Your task to perform on an android device: turn off picture-in-picture Image 0: 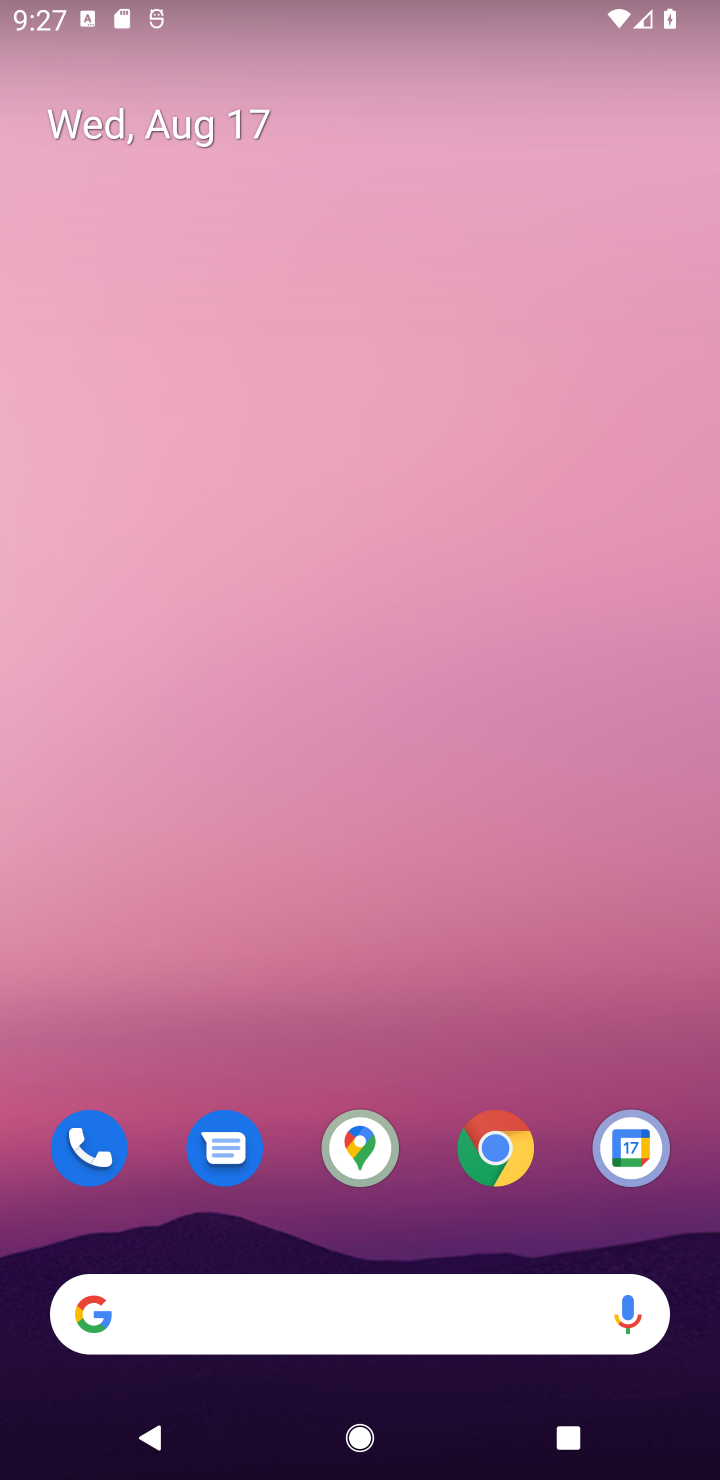
Step 0: drag from (567, 1228) to (644, 72)
Your task to perform on an android device: turn off picture-in-picture Image 1: 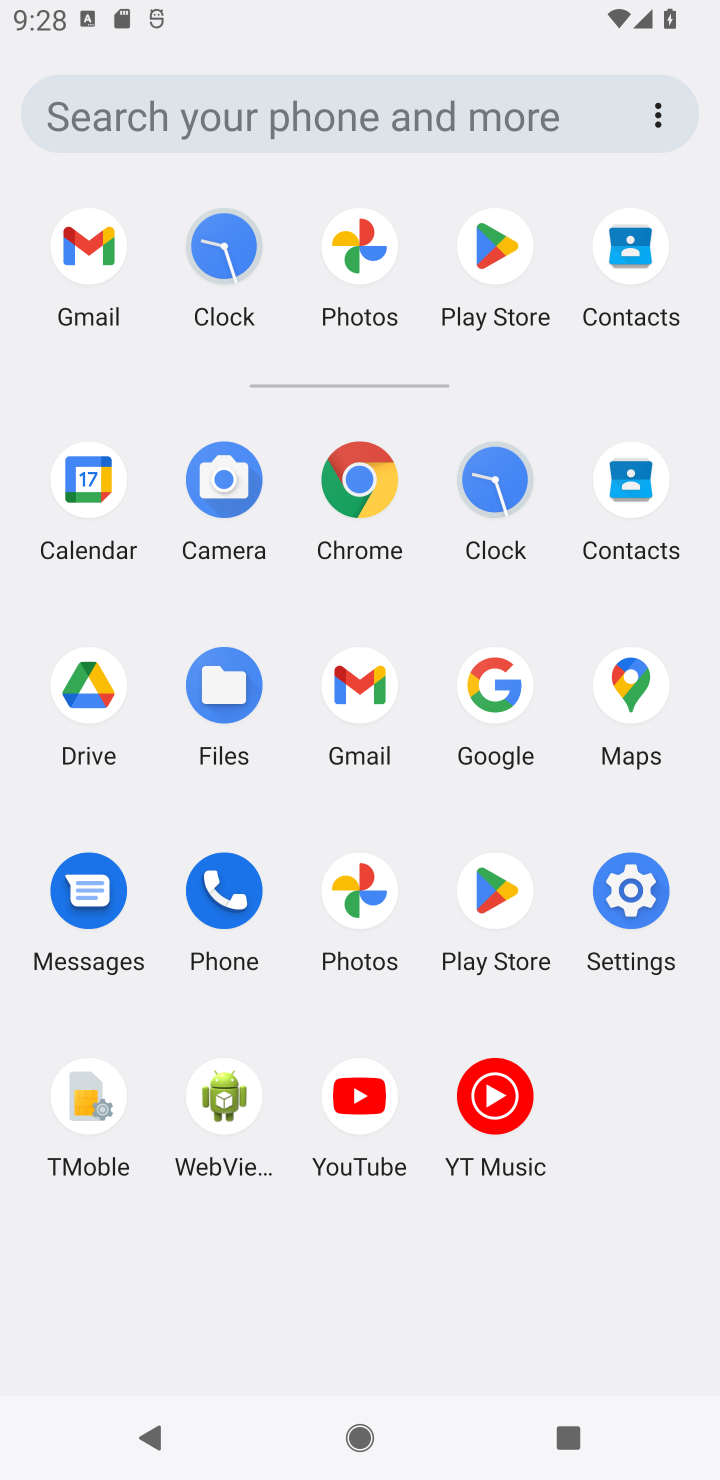
Step 1: click (635, 893)
Your task to perform on an android device: turn off picture-in-picture Image 2: 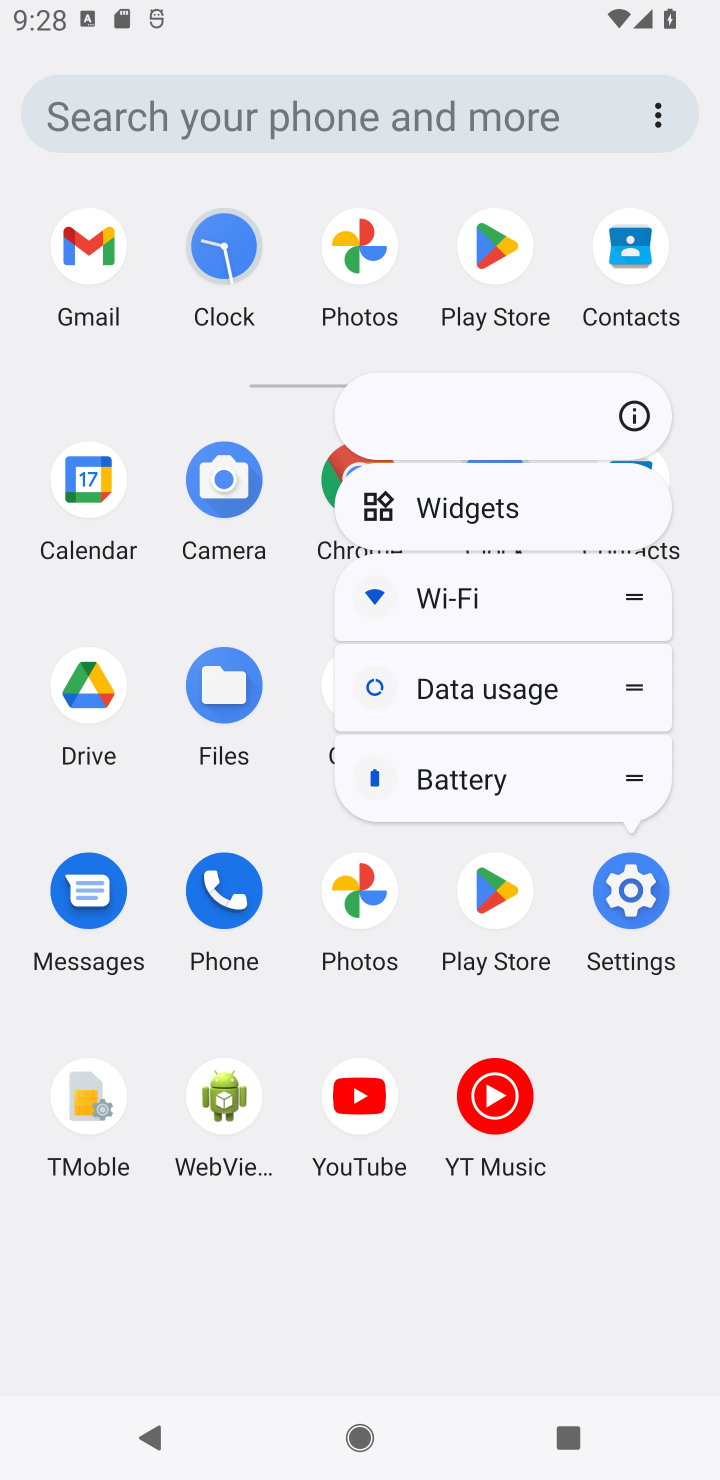
Step 2: click (635, 893)
Your task to perform on an android device: turn off picture-in-picture Image 3: 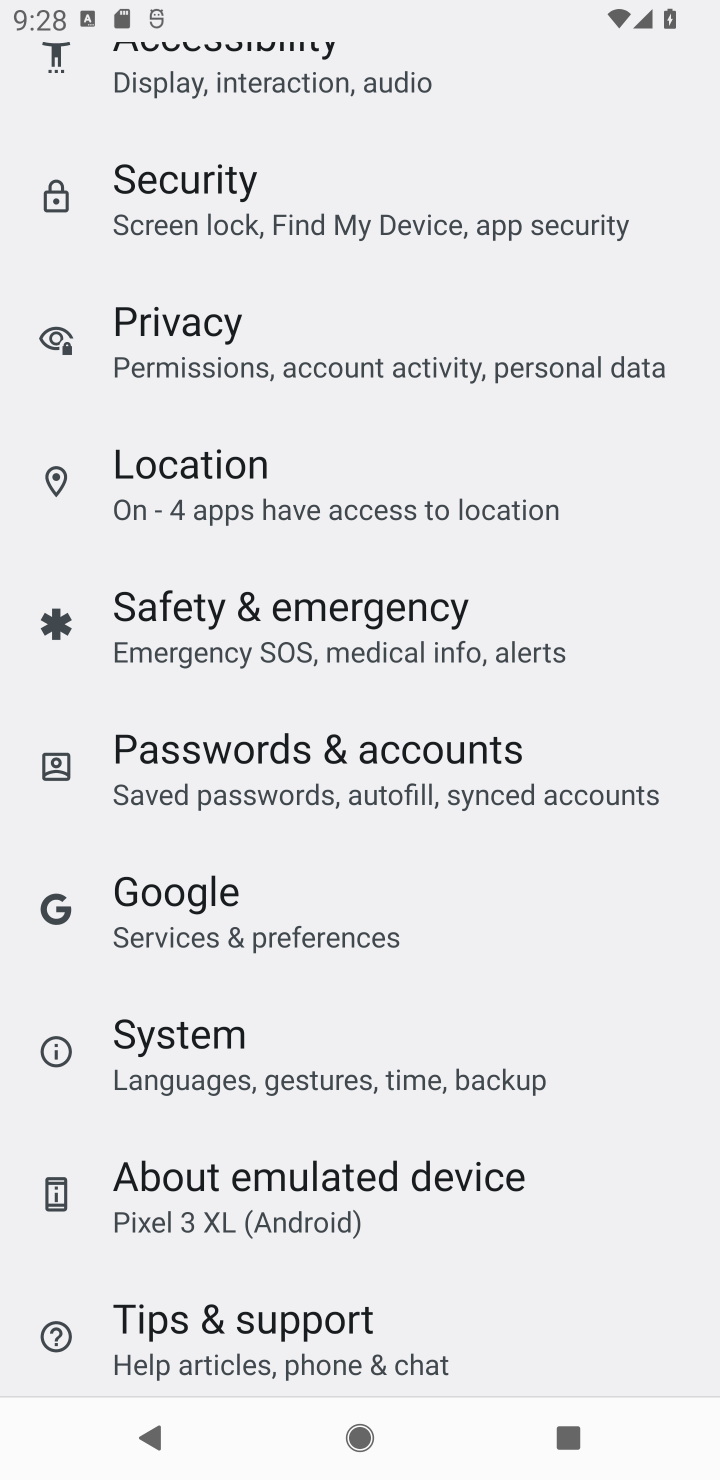
Step 3: drag from (590, 326) to (698, 1371)
Your task to perform on an android device: turn off picture-in-picture Image 4: 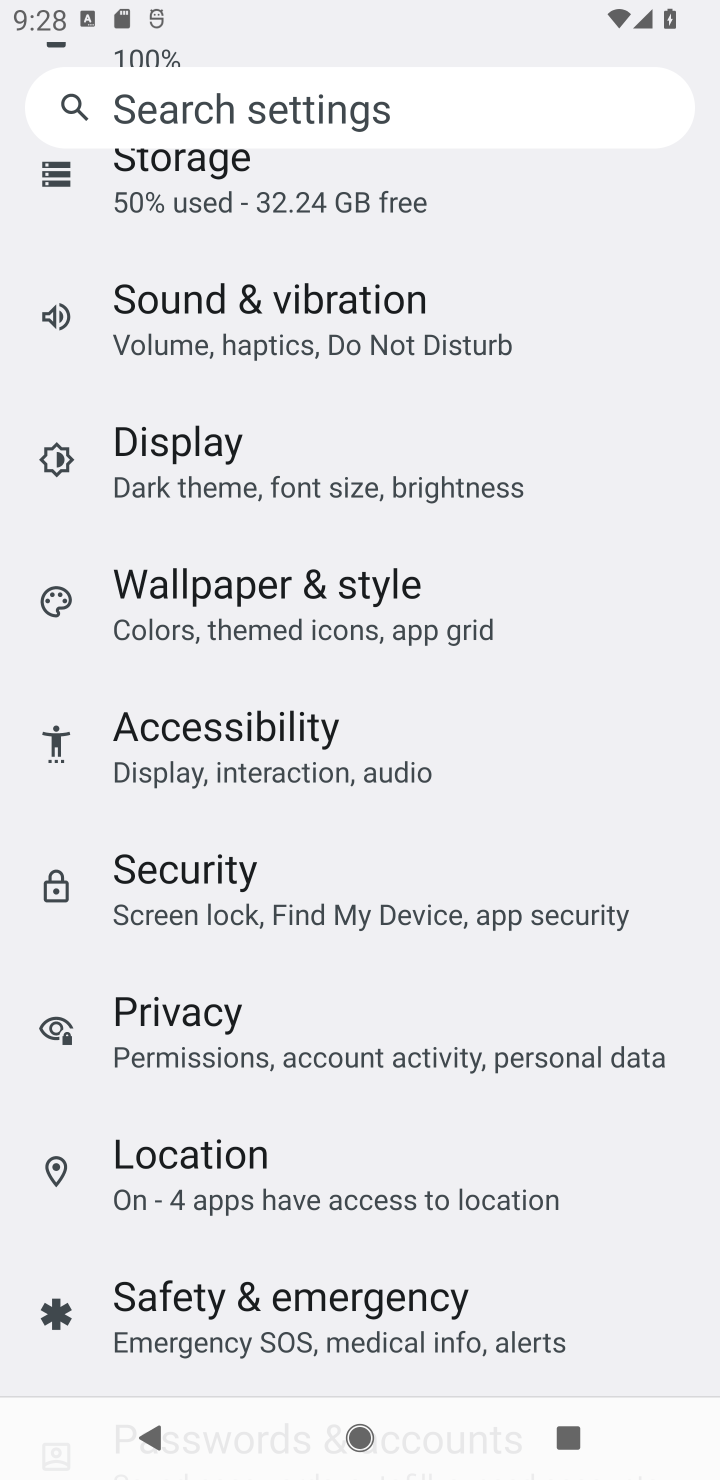
Step 4: drag from (585, 288) to (565, 1234)
Your task to perform on an android device: turn off picture-in-picture Image 5: 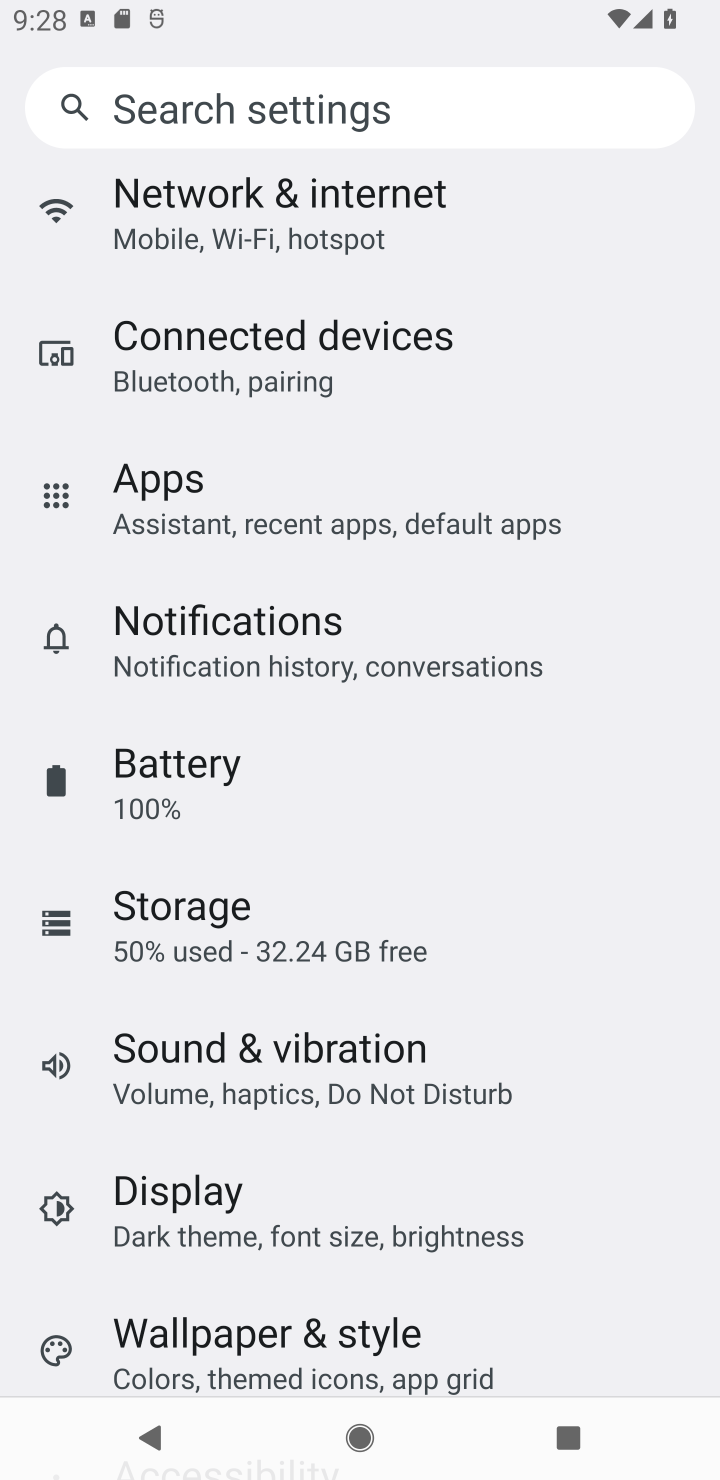
Step 5: click (191, 488)
Your task to perform on an android device: turn off picture-in-picture Image 6: 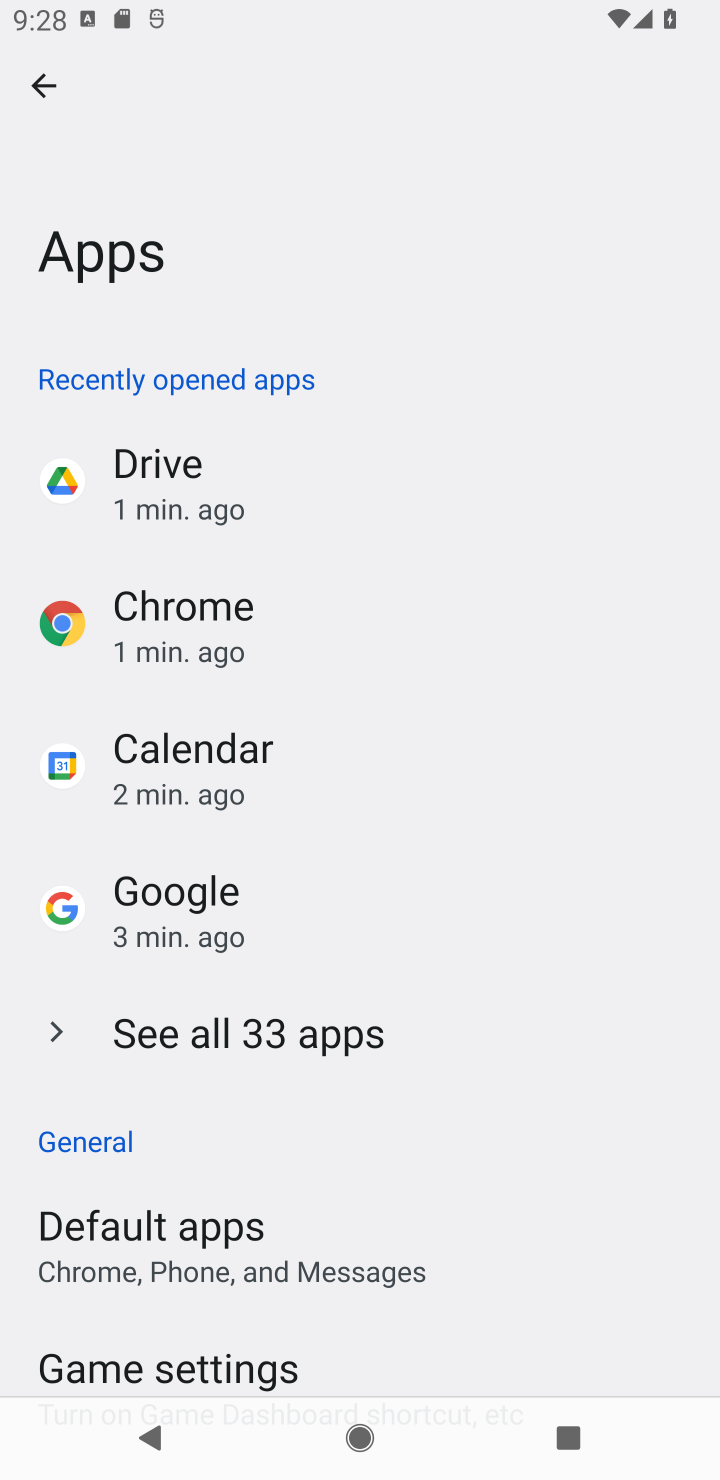
Step 6: drag from (504, 1306) to (364, 412)
Your task to perform on an android device: turn off picture-in-picture Image 7: 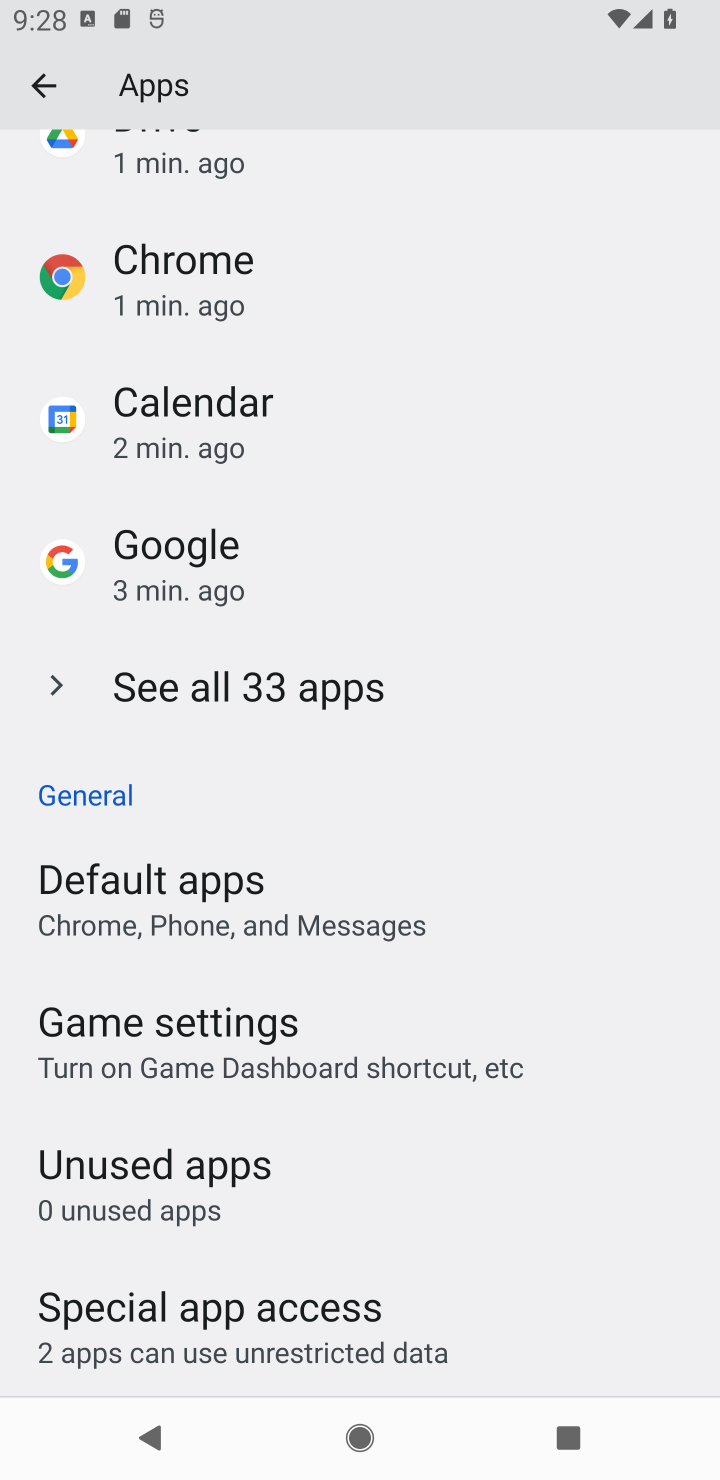
Step 7: click (228, 1320)
Your task to perform on an android device: turn off picture-in-picture Image 8: 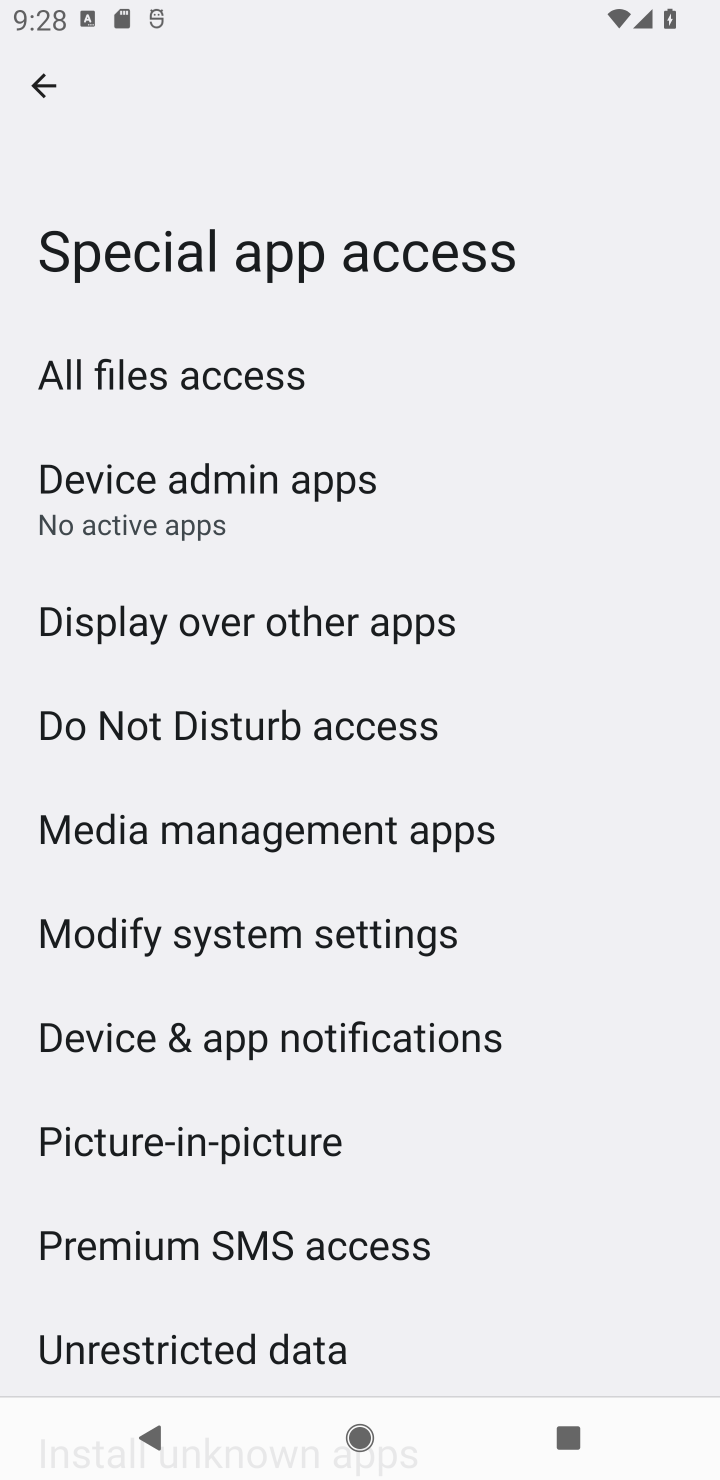
Step 8: click (175, 1121)
Your task to perform on an android device: turn off picture-in-picture Image 9: 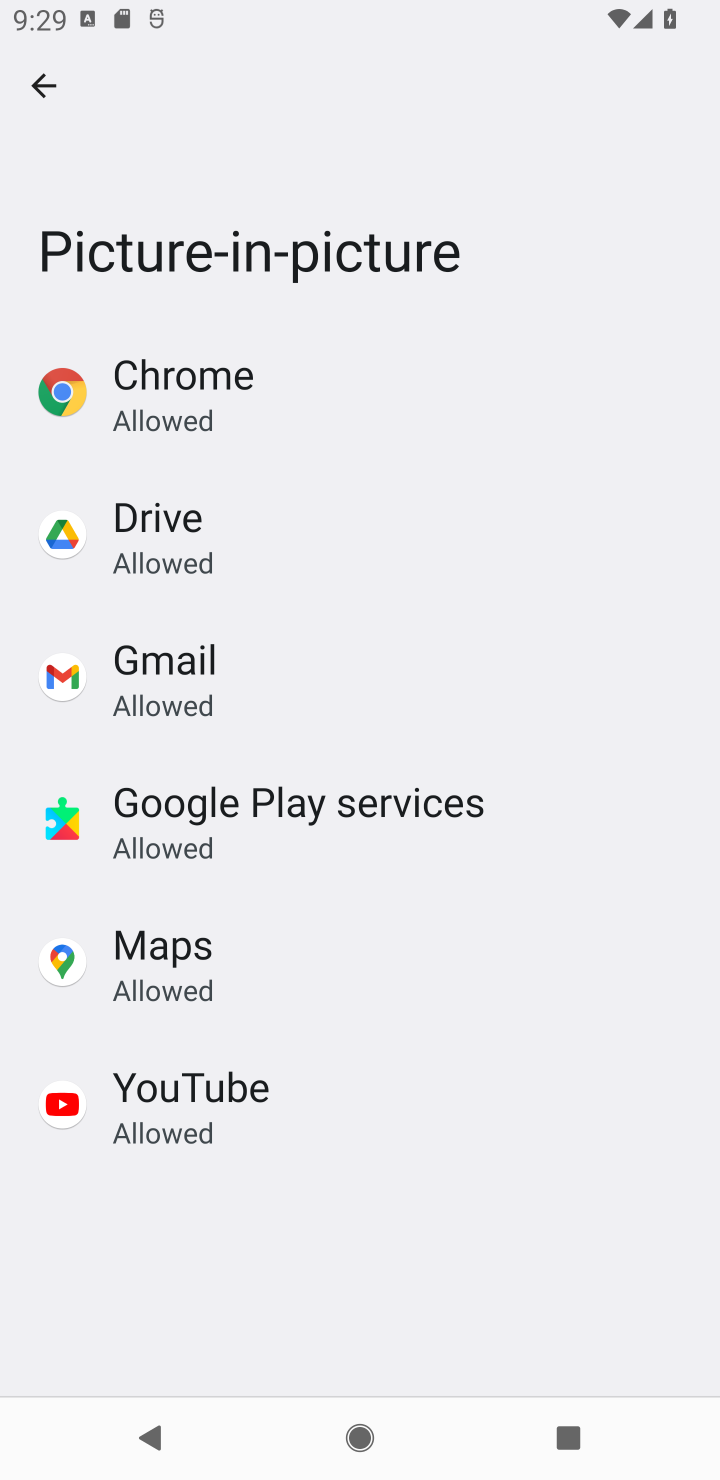
Step 9: click (194, 1100)
Your task to perform on an android device: turn off picture-in-picture Image 10: 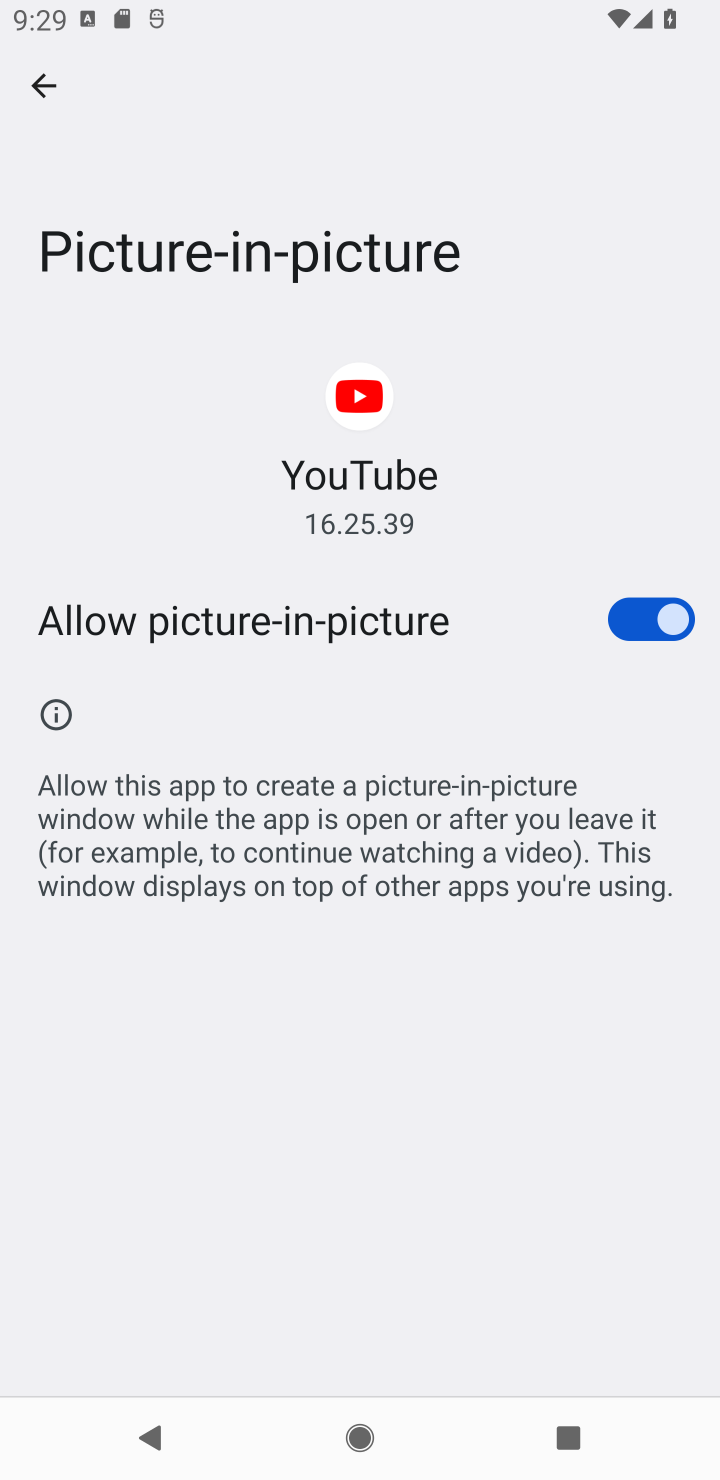
Step 10: click (627, 613)
Your task to perform on an android device: turn off picture-in-picture Image 11: 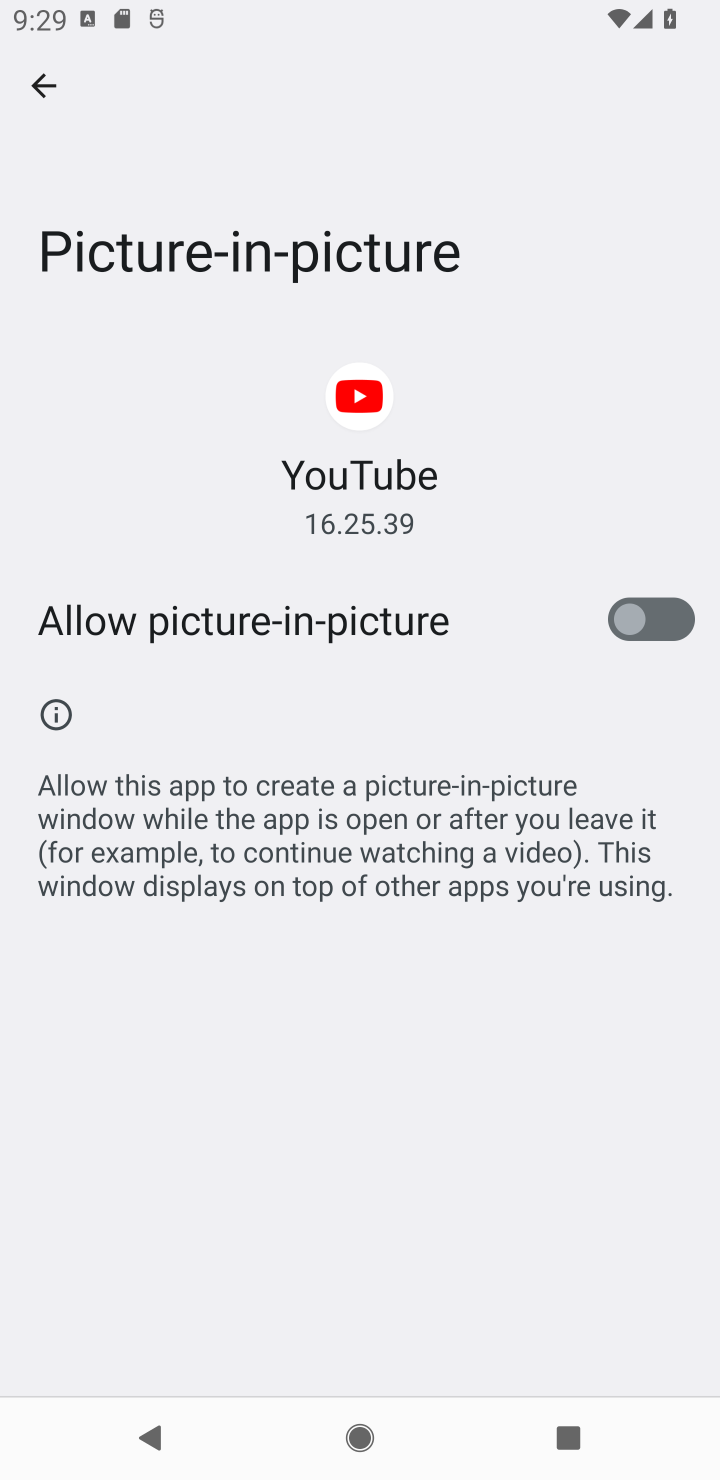
Step 11: task complete